Your task to perform on an android device: Open ESPN.com Image 0: 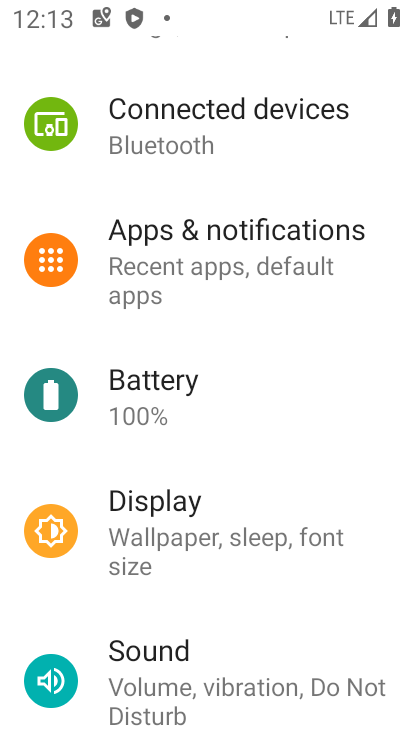
Step 0: press home button
Your task to perform on an android device: Open ESPN.com Image 1: 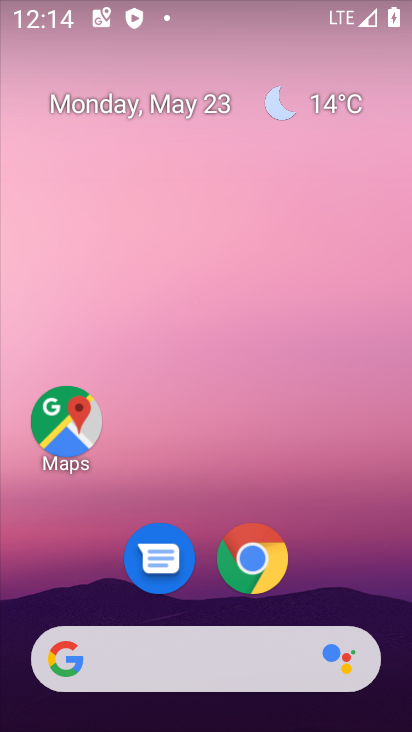
Step 1: click (261, 562)
Your task to perform on an android device: Open ESPN.com Image 2: 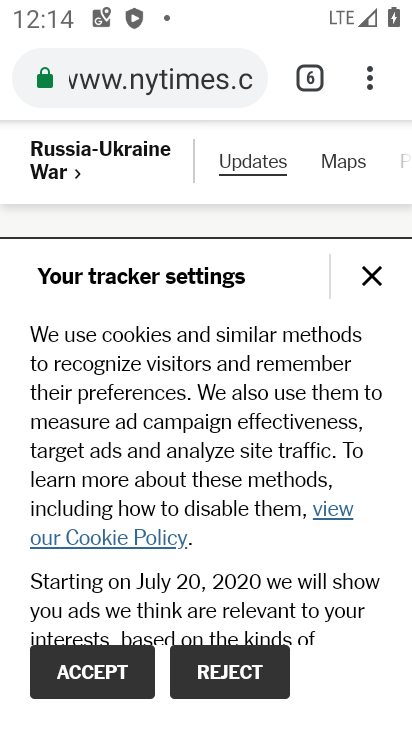
Step 2: click (136, 84)
Your task to perform on an android device: Open ESPN.com Image 3: 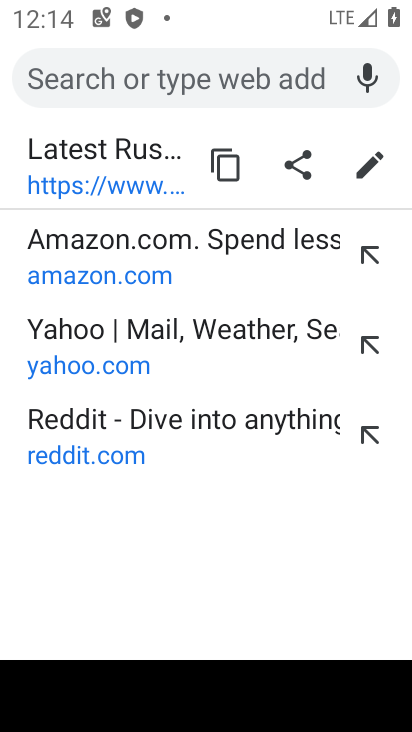
Step 3: type "espn.com"
Your task to perform on an android device: Open ESPN.com Image 4: 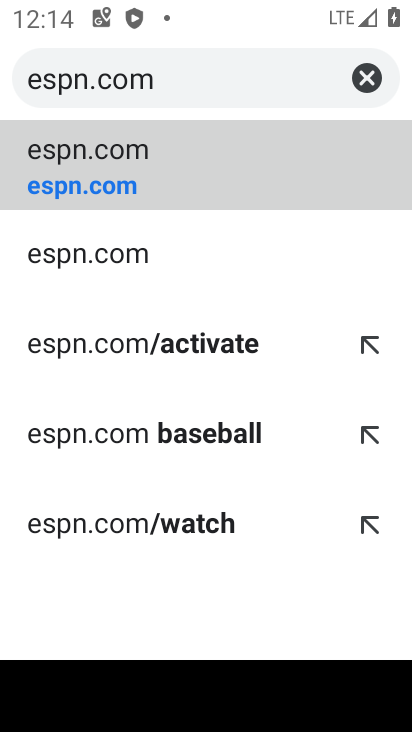
Step 4: click (68, 189)
Your task to perform on an android device: Open ESPN.com Image 5: 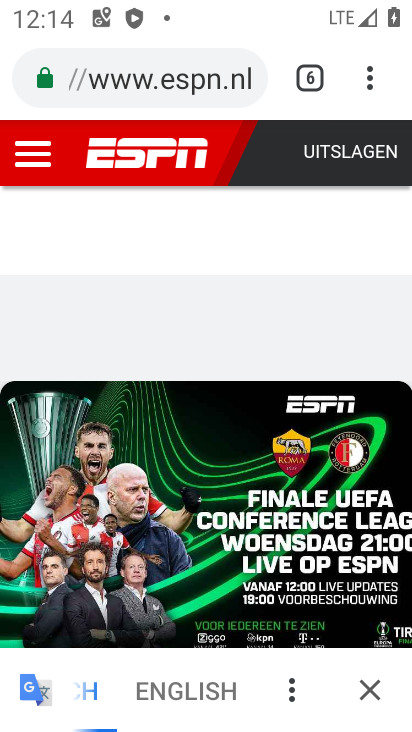
Step 5: task complete